Your task to perform on an android device: open a new tab in the chrome app Image 0: 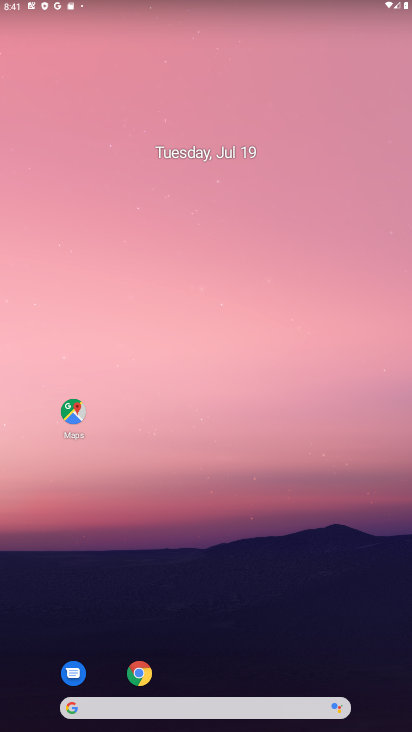
Step 0: click (150, 674)
Your task to perform on an android device: open a new tab in the chrome app Image 1: 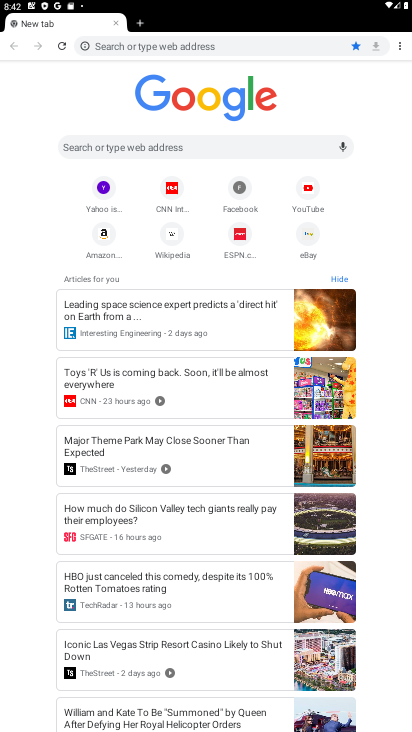
Step 1: click (399, 51)
Your task to perform on an android device: open a new tab in the chrome app Image 2: 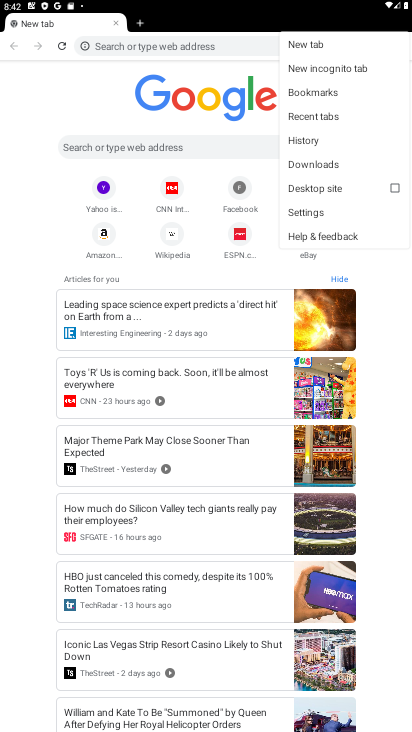
Step 2: click (309, 45)
Your task to perform on an android device: open a new tab in the chrome app Image 3: 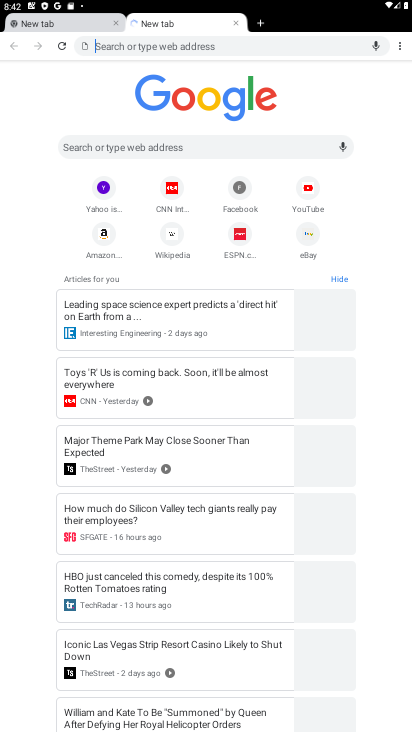
Step 3: task complete